Your task to perform on an android device: choose inbox layout in the gmail app Image 0: 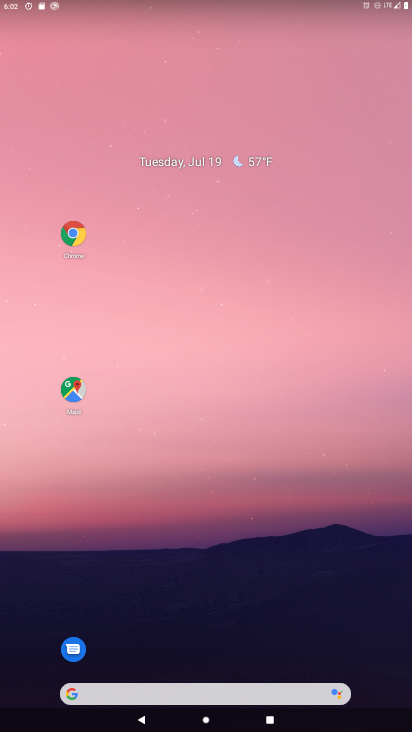
Step 0: drag from (193, 392) to (193, 3)
Your task to perform on an android device: choose inbox layout in the gmail app Image 1: 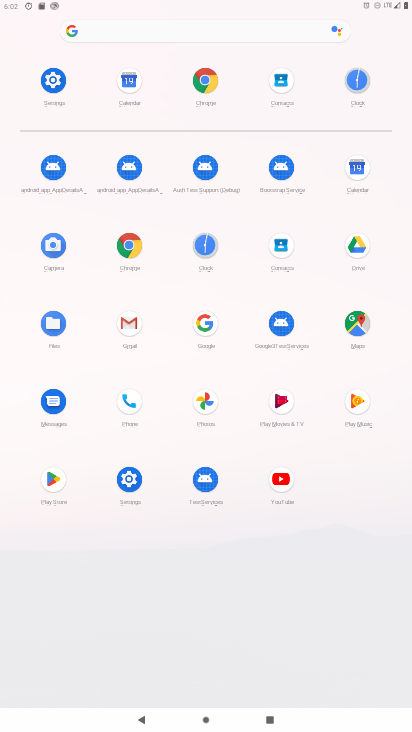
Step 1: click (128, 327)
Your task to perform on an android device: choose inbox layout in the gmail app Image 2: 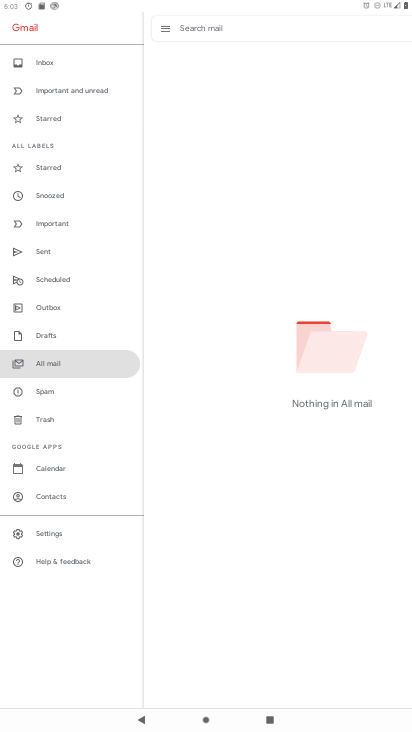
Step 2: click (39, 531)
Your task to perform on an android device: choose inbox layout in the gmail app Image 3: 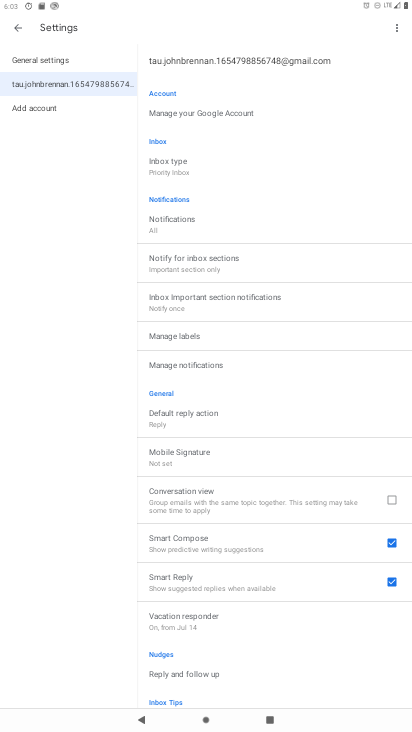
Step 3: click (165, 175)
Your task to perform on an android device: choose inbox layout in the gmail app Image 4: 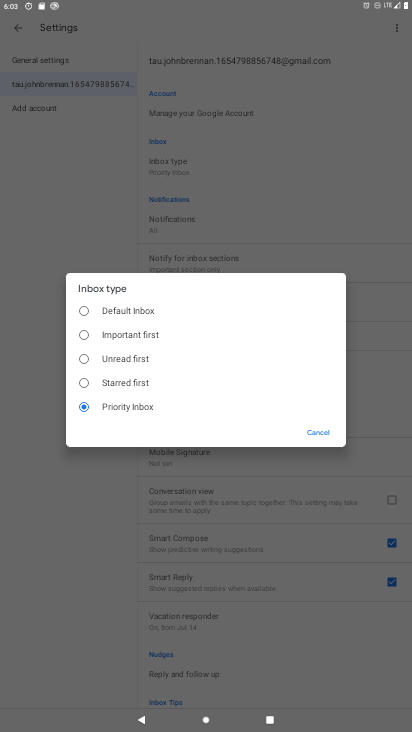
Step 4: click (81, 317)
Your task to perform on an android device: choose inbox layout in the gmail app Image 5: 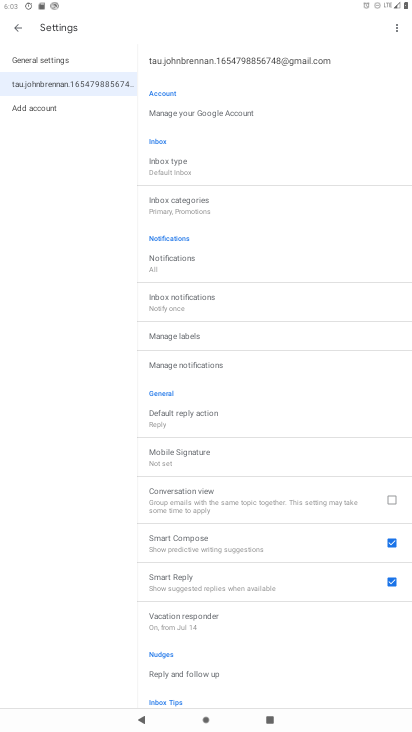
Step 5: task complete